Your task to perform on an android device: change your default location settings in chrome Image 0: 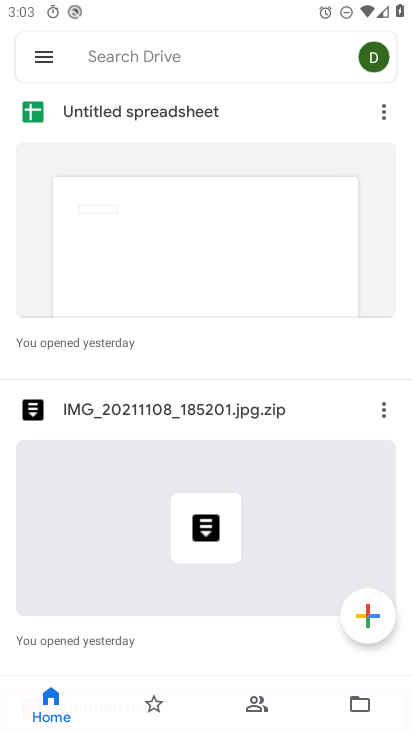
Step 0: press home button
Your task to perform on an android device: change your default location settings in chrome Image 1: 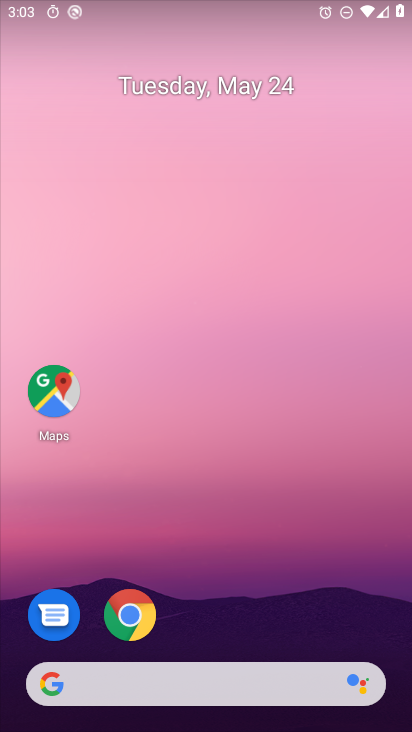
Step 1: click (139, 623)
Your task to perform on an android device: change your default location settings in chrome Image 2: 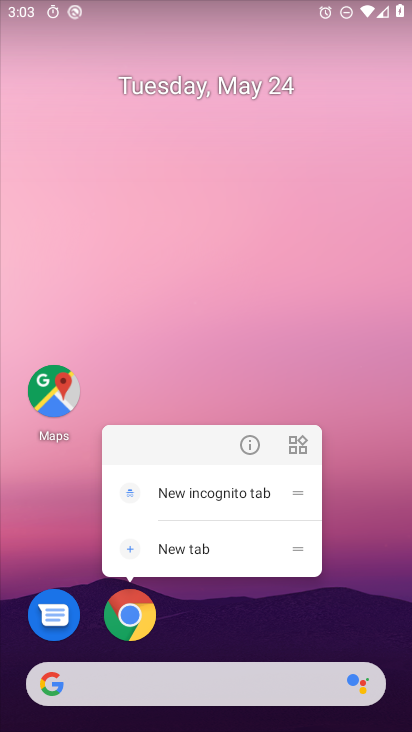
Step 2: click (130, 613)
Your task to perform on an android device: change your default location settings in chrome Image 3: 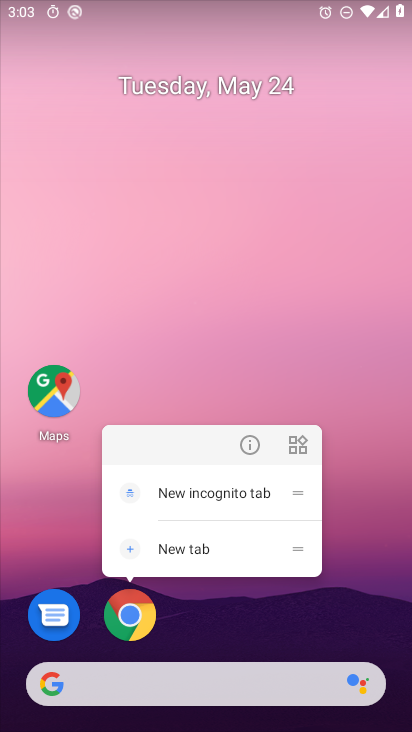
Step 3: click (134, 623)
Your task to perform on an android device: change your default location settings in chrome Image 4: 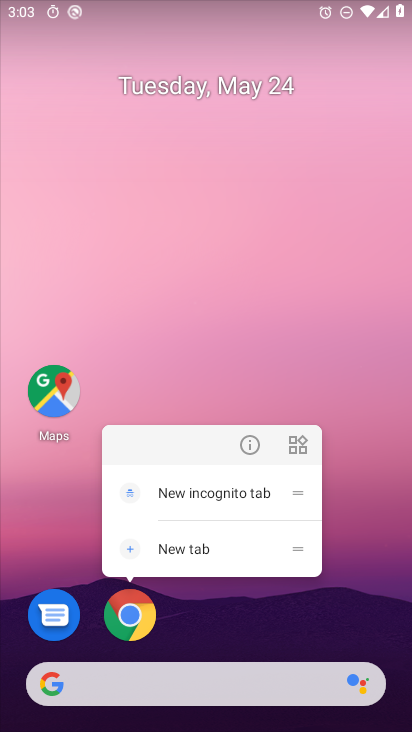
Step 4: click (133, 623)
Your task to perform on an android device: change your default location settings in chrome Image 5: 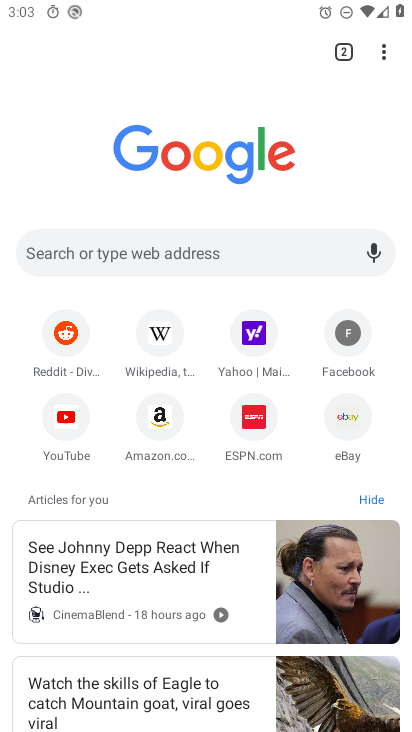
Step 5: click (389, 53)
Your task to perform on an android device: change your default location settings in chrome Image 6: 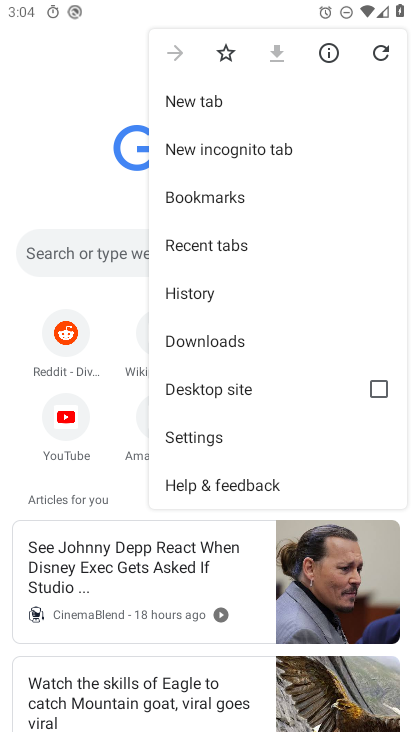
Step 6: click (215, 441)
Your task to perform on an android device: change your default location settings in chrome Image 7: 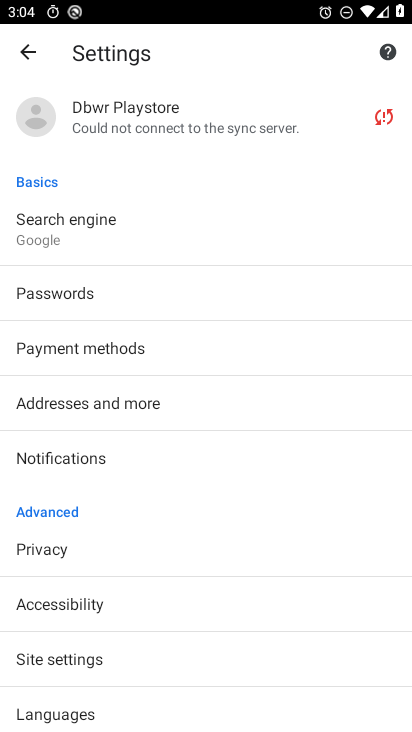
Step 7: click (48, 663)
Your task to perform on an android device: change your default location settings in chrome Image 8: 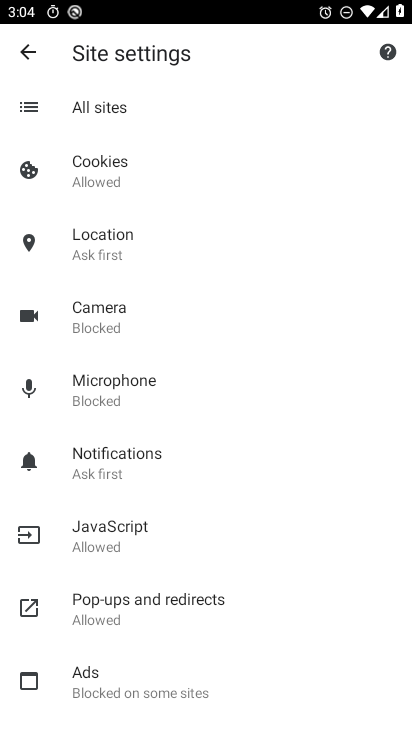
Step 8: click (106, 249)
Your task to perform on an android device: change your default location settings in chrome Image 9: 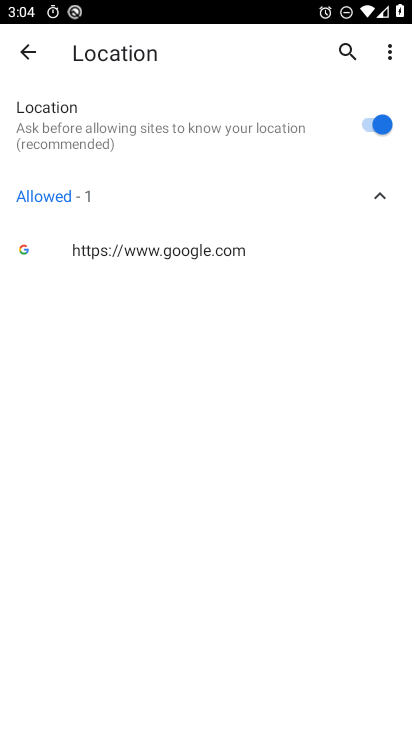
Step 9: click (366, 121)
Your task to perform on an android device: change your default location settings in chrome Image 10: 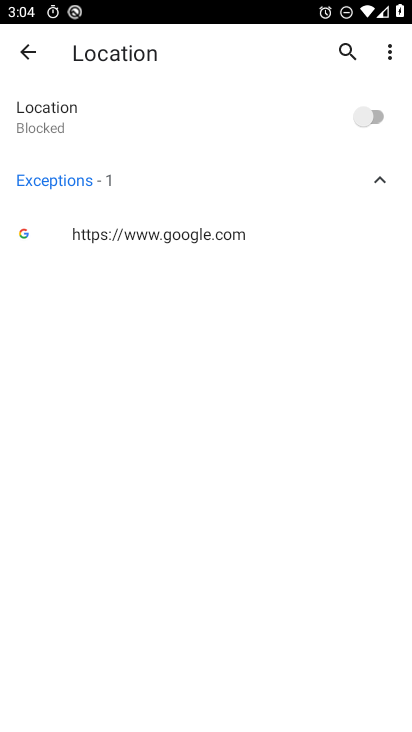
Step 10: task complete